Your task to perform on an android device: Go to Wikipedia Image 0: 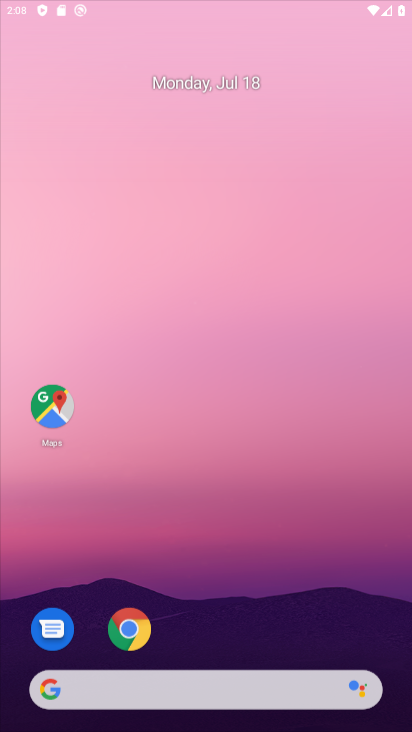
Step 0: click (246, 27)
Your task to perform on an android device: Go to Wikipedia Image 1: 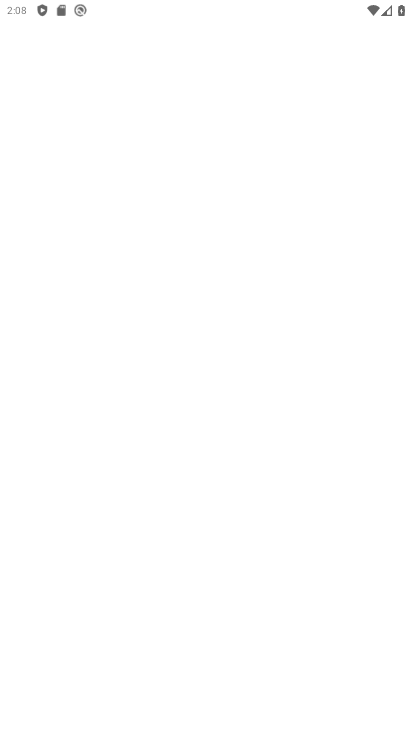
Step 1: press home button
Your task to perform on an android device: Go to Wikipedia Image 2: 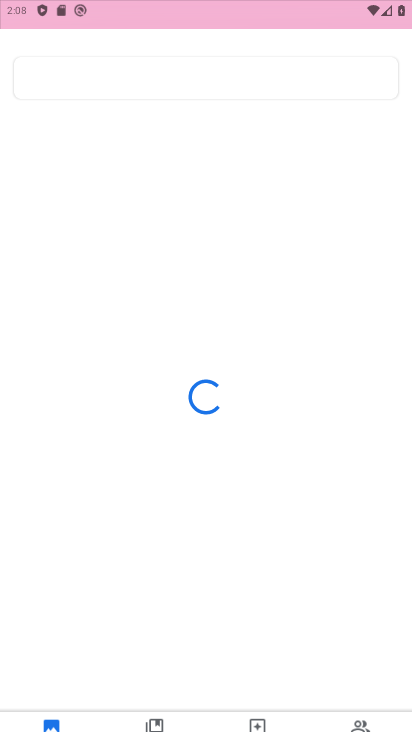
Step 2: drag from (368, 673) to (221, 5)
Your task to perform on an android device: Go to Wikipedia Image 3: 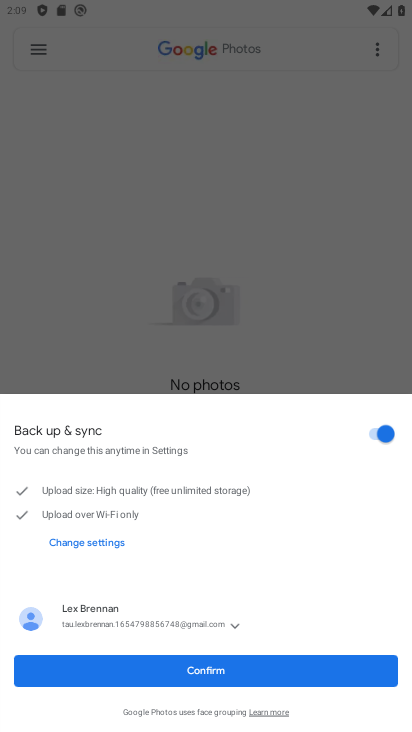
Step 3: press home button
Your task to perform on an android device: Go to Wikipedia Image 4: 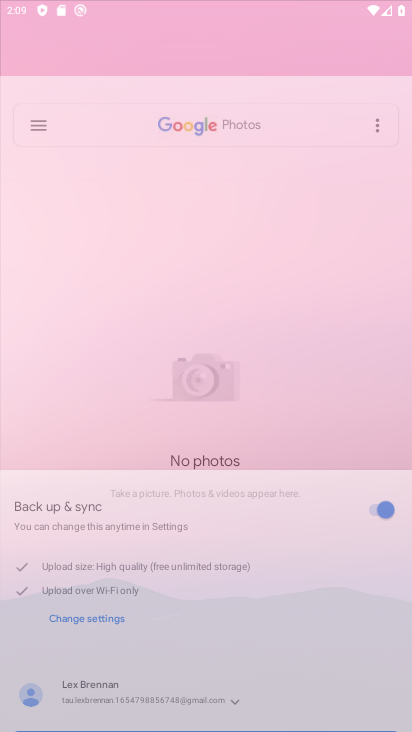
Step 4: drag from (321, 648) to (186, 20)
Your task to perform on an android device: Go to Wikipedia Image 5: 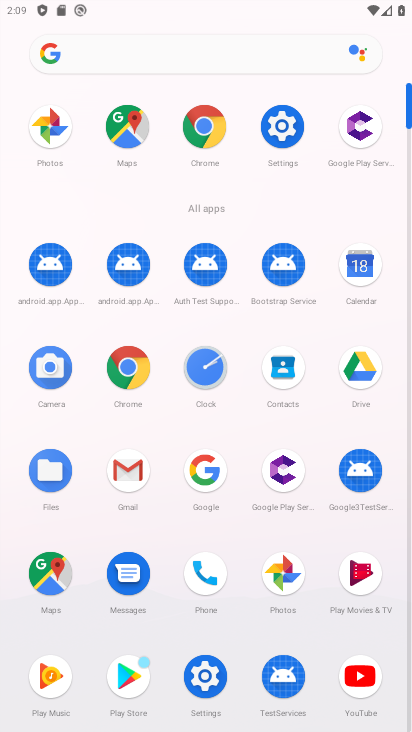
Step 5: click (188, 474)
Your task to perform on an android device: Go to Wikipedia Image 6: 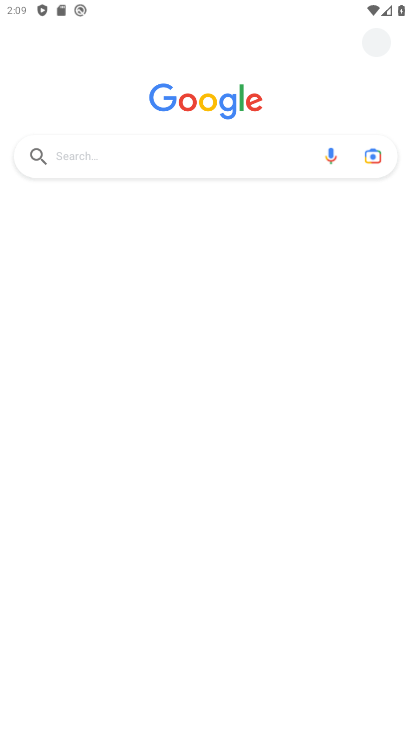
Step 6: click (113, 161)
Your task to perform on an android device: Go to Wikipedia Image 7: 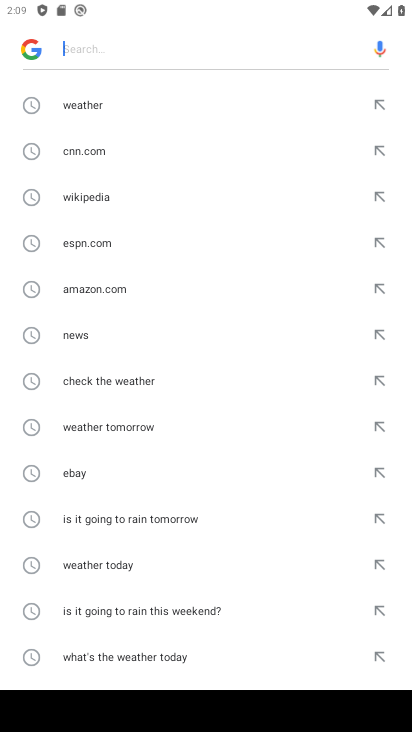
Step 7: click (96, 203)
Your task to perform on an android device: Go to Wikipedia Image 8: 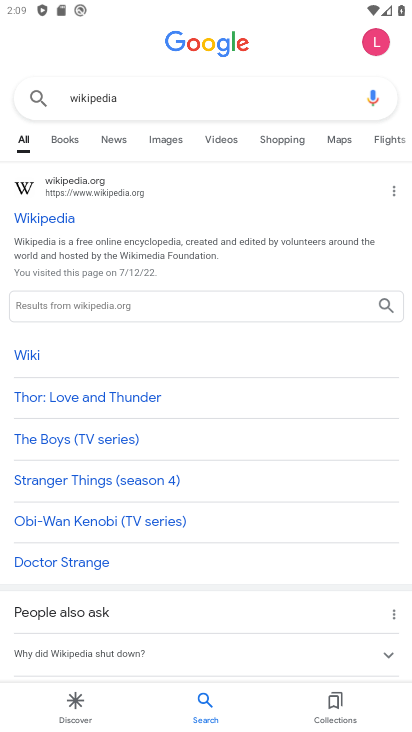
Step 8: task complete